Your task to perform on an android device: find snoozed emails in the gmail app Image 0: 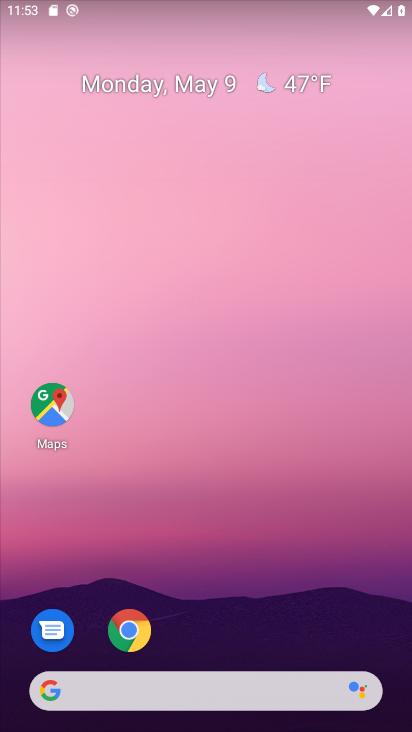
Step 0: drag from (214, 469) to (120, 196)
Your task to perform on an android device: find snoozed emails in the gmail app Image 1: 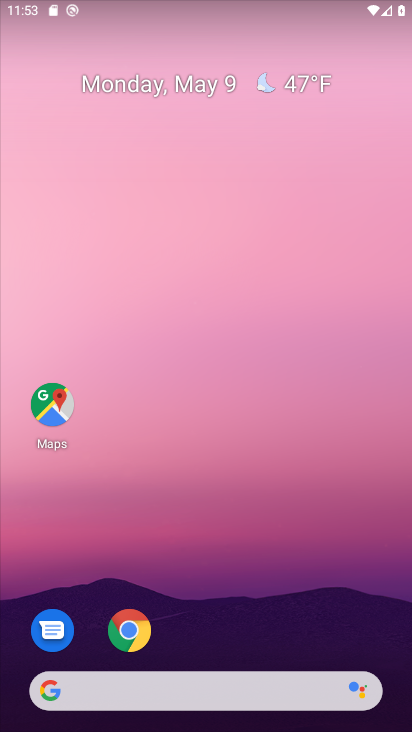
Step 1: drag from (256, 575) to (160, 110)
Your task to perform on an android device: find snoozed emails in the gmail app Image 2: 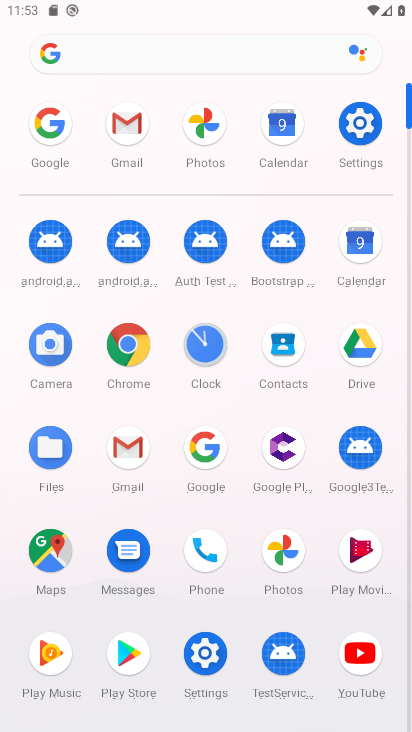
Step 2: click (129, 143)
Your task to perform on an android device: find snoozed emails in the gmail app Image 3: 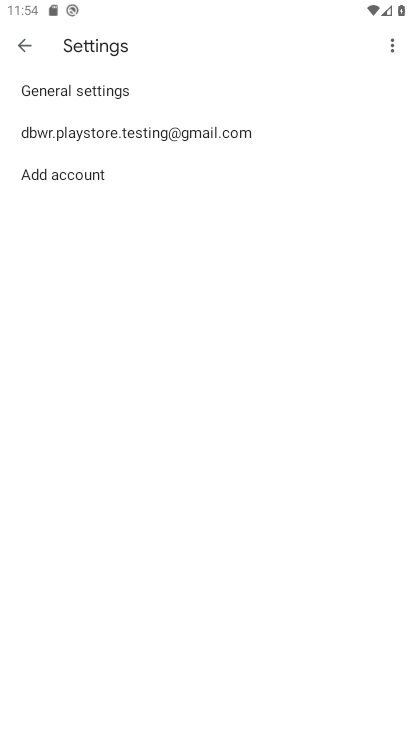
Step 3: press back button
Your task to perform on an android device: find snoozed emails in the gmail app Image 4: 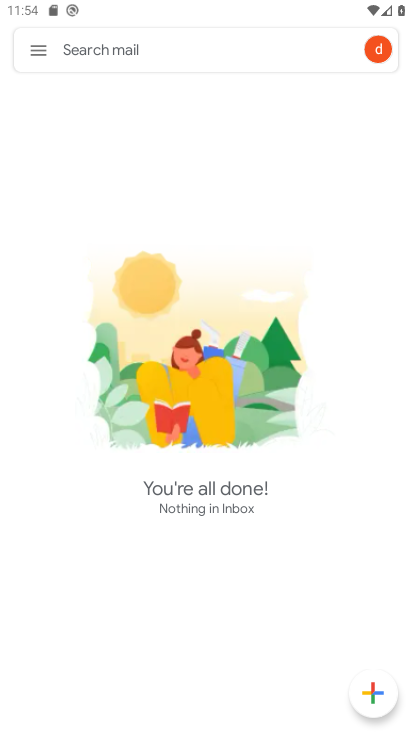
Step 4: click (36, 45)
Your task to perform on an android device: find snoozed emails in the gmail app Image 5: 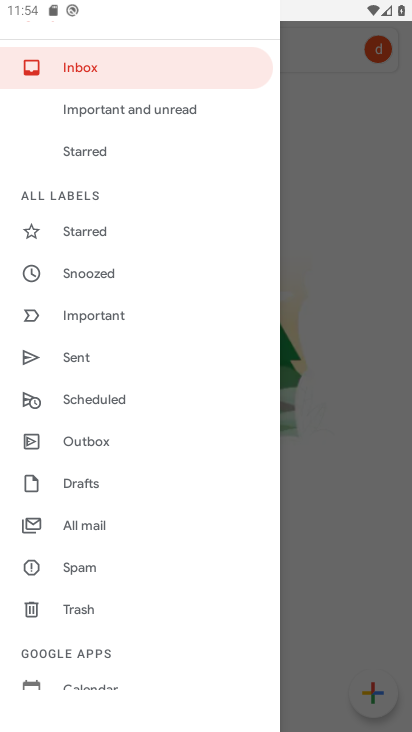
Step 5: click (106, 280)
Your task to perform on an android device: find snoozed emails in the gmail app Image 6: 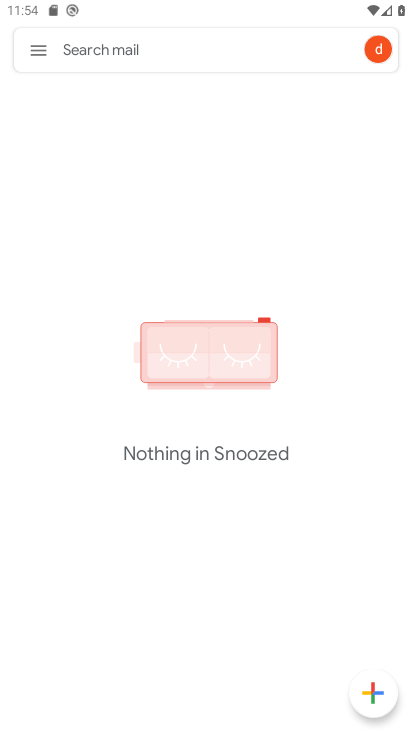
Step 6: task complete